Your task to perform on an android device: change keyboard looks Image 0: 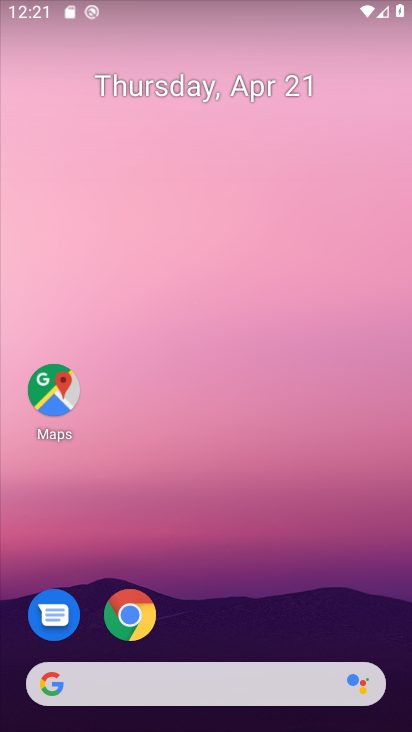
Step 0: drag from (352, 596) to (354, 23)
Your task to perform on an android device: change keyboard looks Image 1: 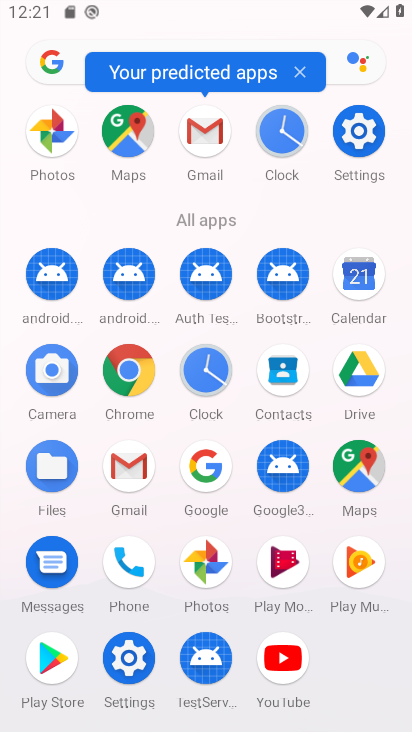
Step 1: click (372, 125)
Your task to perform on an android device: change keyboard looks Image 2: 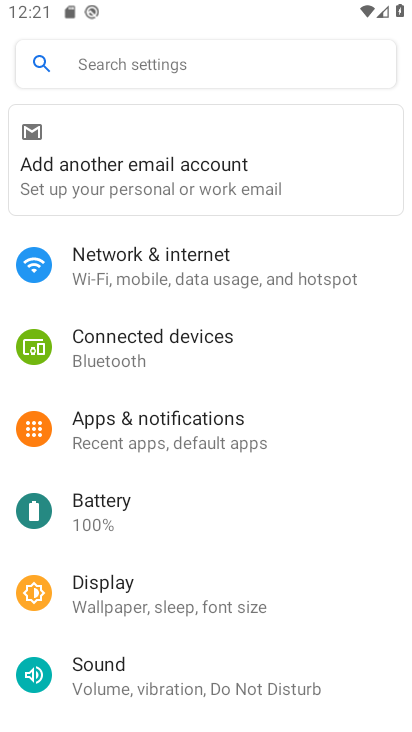
Step 2: drag from (286, 662) to (340, 107)
Your task to perform on an android device: change keyboard looks Image 3: 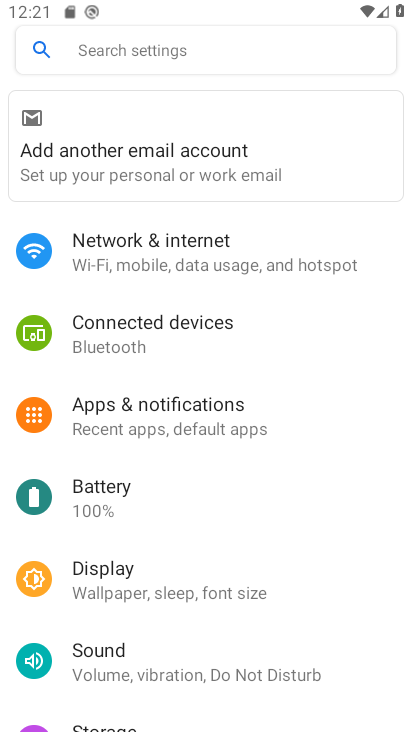
Step 3: drag from (325, 629) to (315, 206)
Your task to perform on an android device: change keyboard looks Image 4: 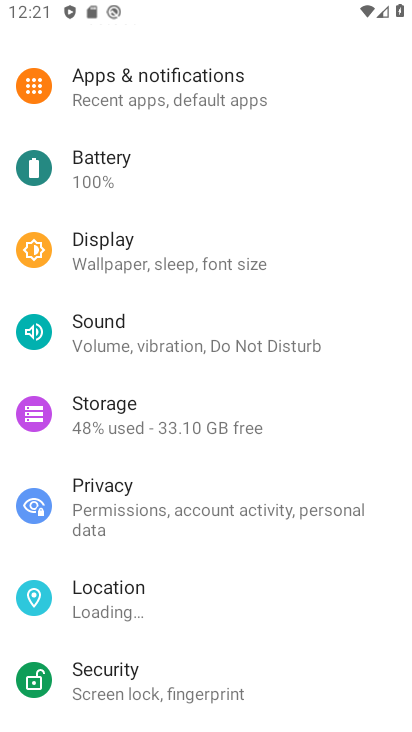
Step 4: drag from (289, 650) to (277, 231)
Your task to perform on an android device: change keyboard looks Image 5: 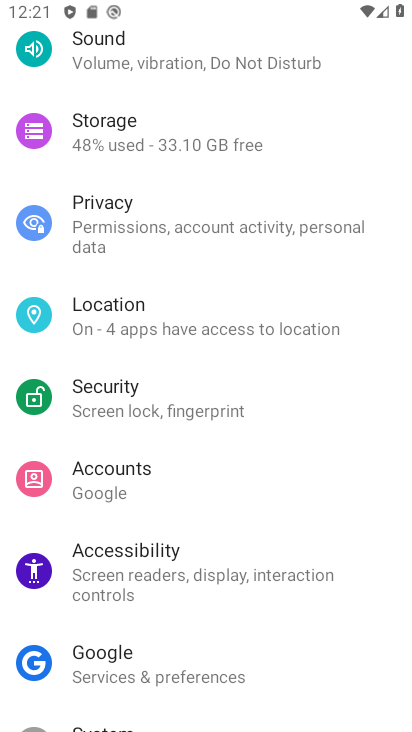
Step 5: drag from (284, 572) to (278, 245)
Your task to perform on an android device: change keyboard looks Image 6: 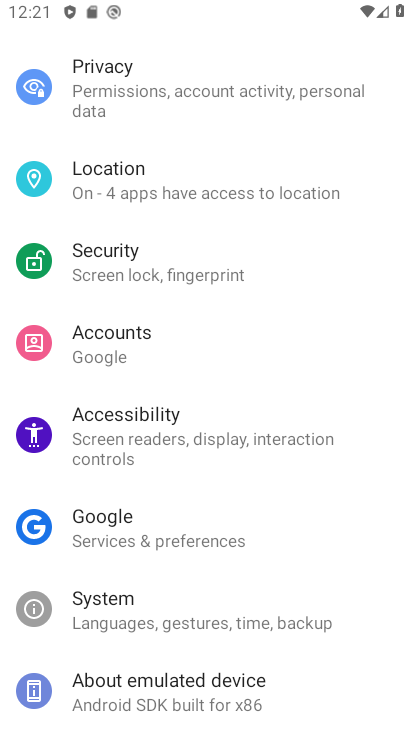
Step 6: drag from (251, 598) to (249, 463)
Your task to perform on an android device: change keyboard looks Image 7: 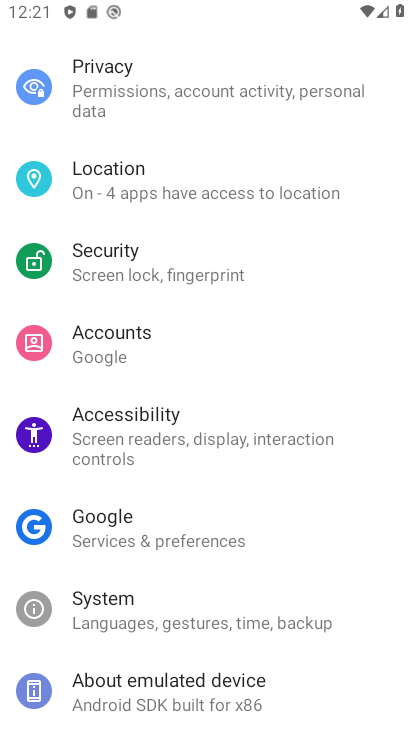
Step 7: click (172, 611)
Your task to perform on an android device: change keyboard looks Image 8: 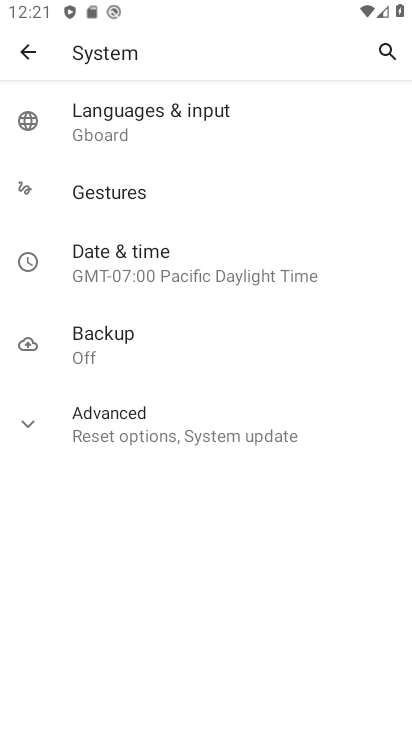
Step 8: click (183, 115)
Your task to perform on an android device: change keyboard looks Image 9: 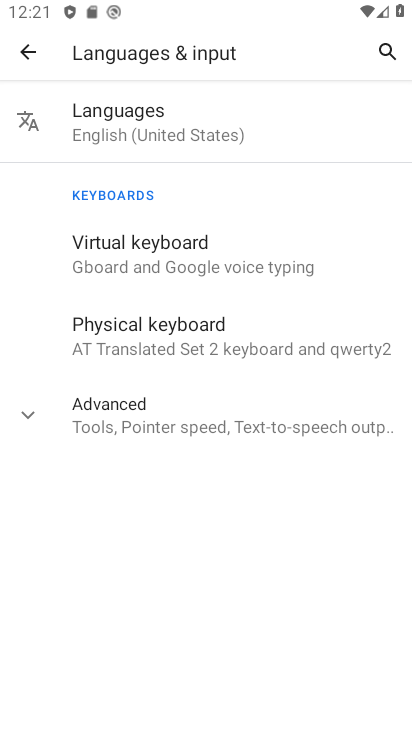
Step 9: click (185, 268)
Your task to perform on an android device: change keyboard looks Image 10: 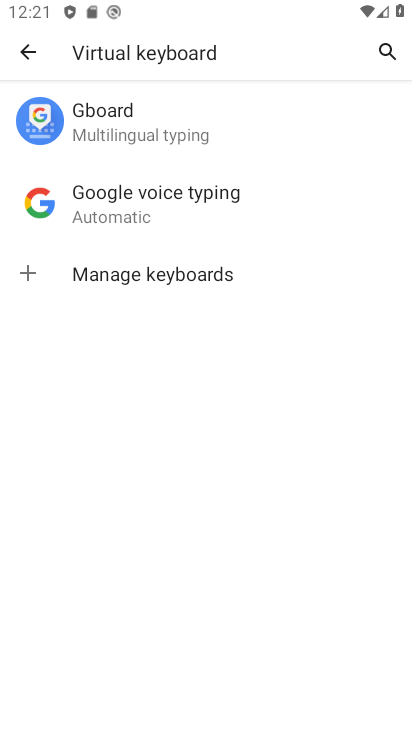
Step 10: click (126, 116)
Your task to perform on an android device: change keyboard looks Image 11: 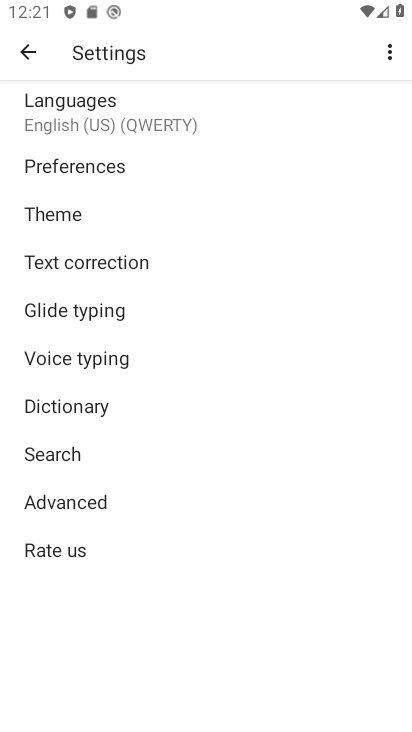
Step 11: click (112, 208)
Your task to perform on an android device: change keyboard looks Image 12: 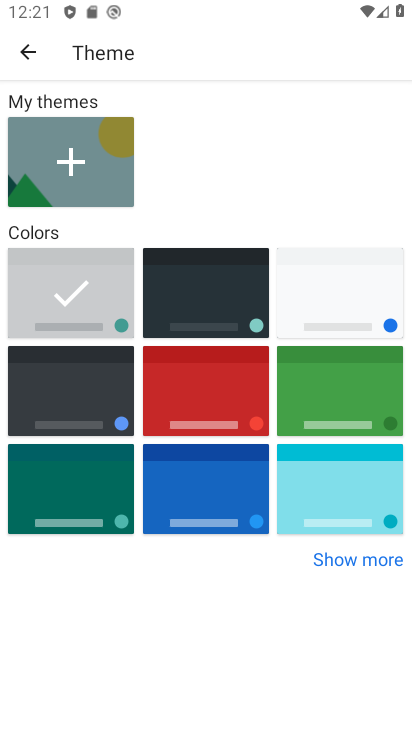
Step 12: click (210, 478)
Your task to perform on an android device: change keyboard looks Image 13: 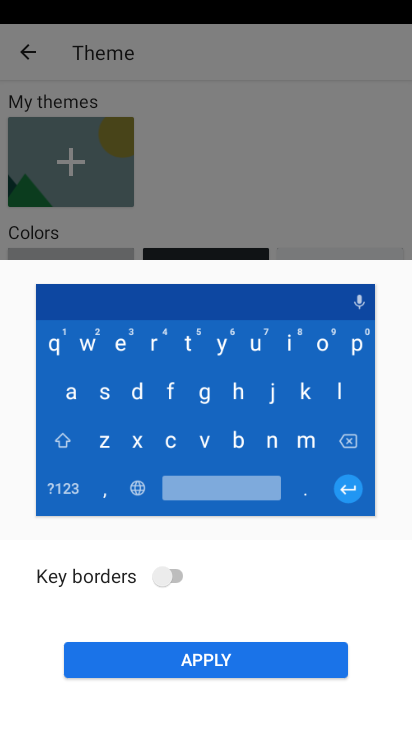
Step 13: click (184, 651)
Your task to perform on an android device: change keyboard looks Image 14: 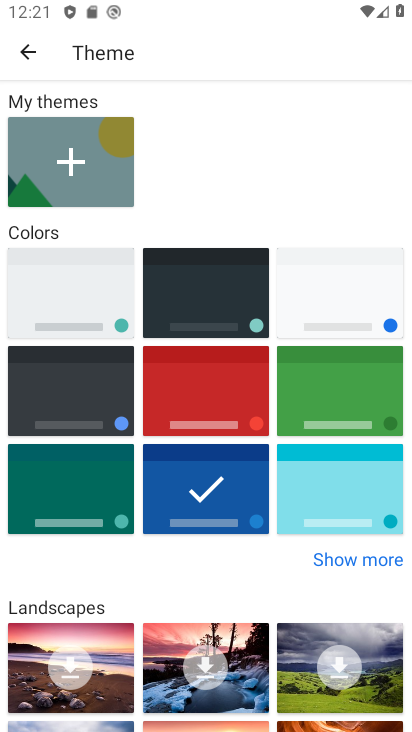
Step 14: task complete